Your task to perform on an android device: uninstall "Firefox Browser" Image 0: 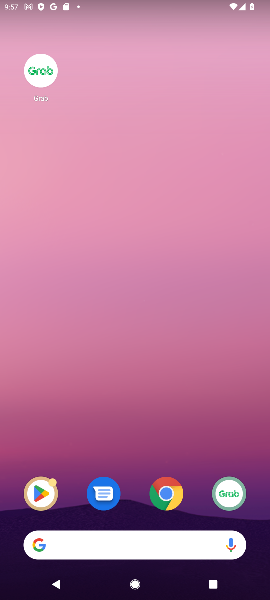
Step 0: click (171, 497)
Your task to perform on an android device: uninstall "Firefox Browser" Image 1: 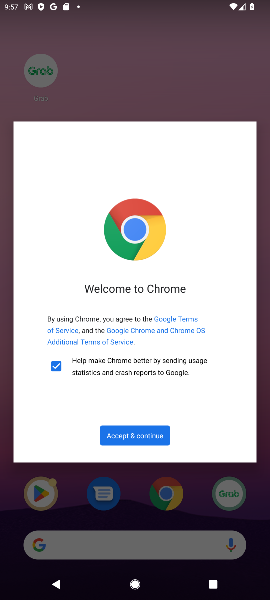
Step 1: click (141, 431)
Your task to perform on an android device: uninstall "Firefox Browser" Image 2: 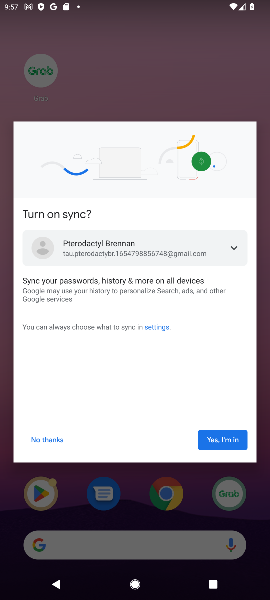
Step 2: click (227, 442)
Your task to perform on an android device: uninstall "Firefox Browser" Image 3: 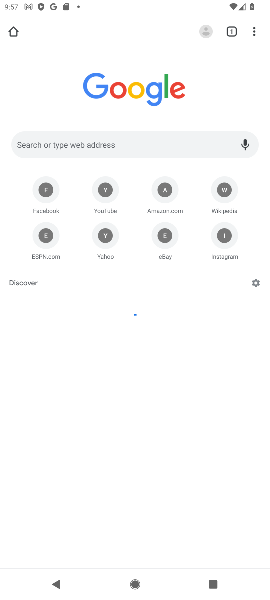
Step 3: click (155, 152)
Your task to perform on an android device: uninstall "Firefox Browser" Image 4: 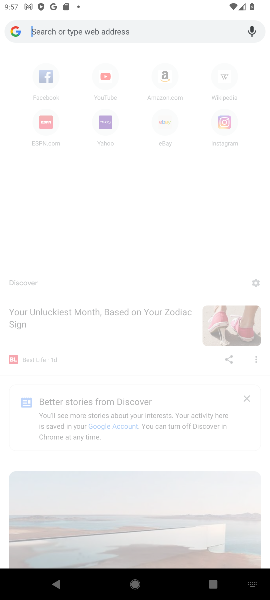
Step 4: type "firefox"
Your task to perform on an android device: uninstall "Firefox Browser" Image 5: 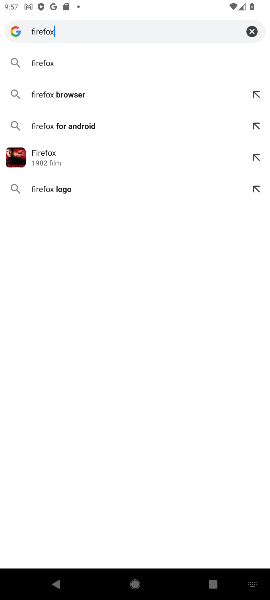
Step 5: click (153, 102)
Your task to perform on an android device: uninstall "Firefox Browser" Image 6: 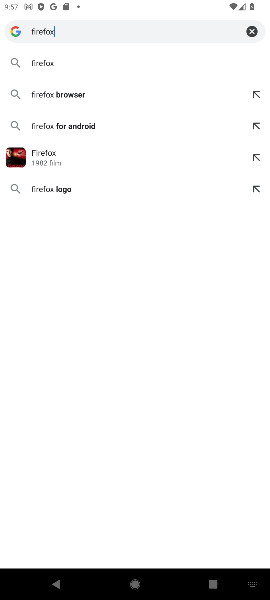
Step 6: task complete